Your task to perform on an android device: Check the weather Image 0: 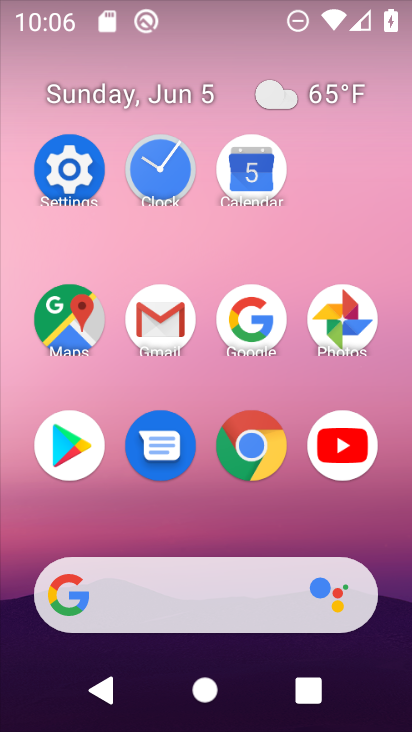
Step 0: click (252, 337)
Your task to perform on an android device: Check the weather Image 1: 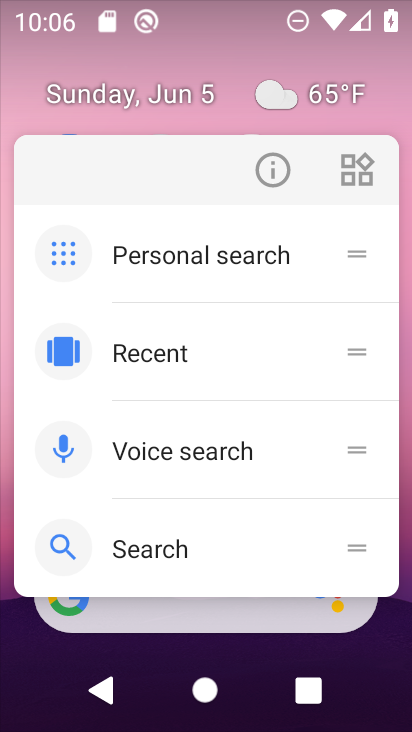
Step 1: click (386, 85)
Your task to perform on an android device: Check the weather Image 2: 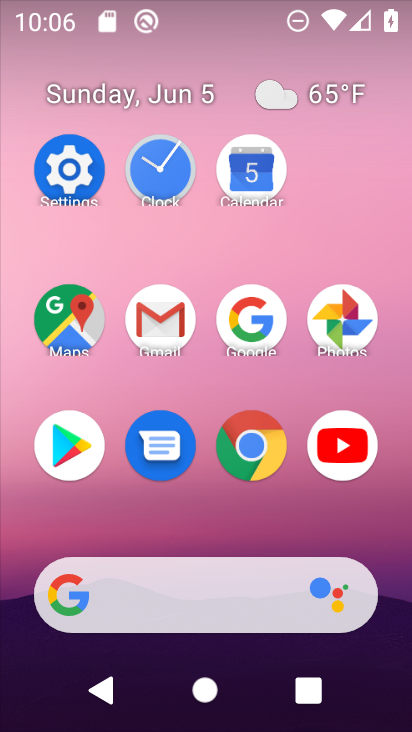
Step 2: click (263, 320)
Your task to perform on an android device: Check the weather Image 3: 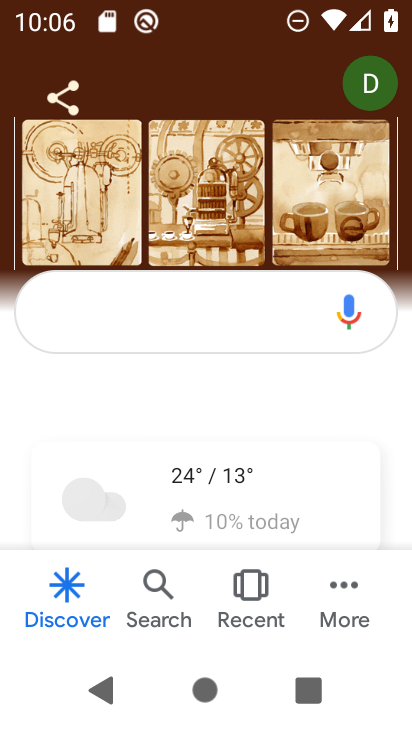
Step 3: click (150, 497)
Your task to perform on an android device: Check the weather Image 4: 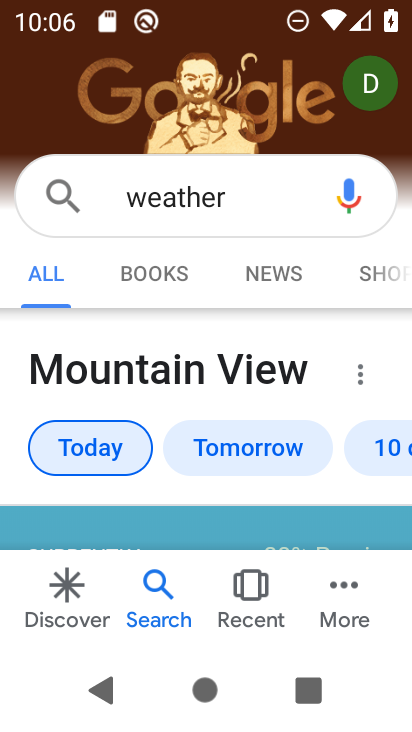
Step 4: task complete